Your task to perform on an android device: Open location settings Image 0: 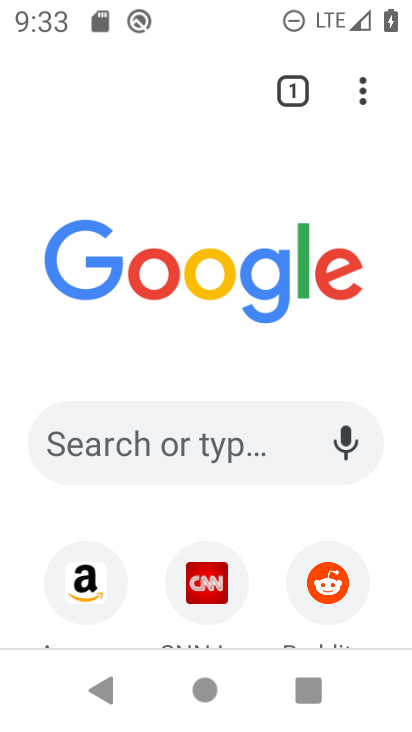
Step 0: press home button
Your task to perform on an android device: Open location settings Image 1: 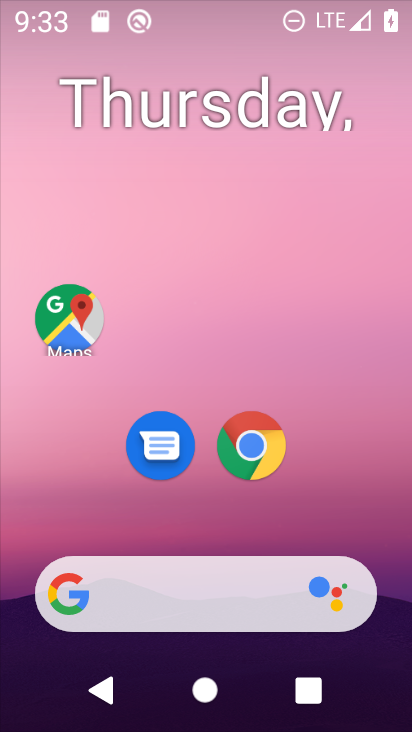
Step 1: drag from (389, 620) to (338, 19)
Your task to perform on an android device: Open location settings Image 2: 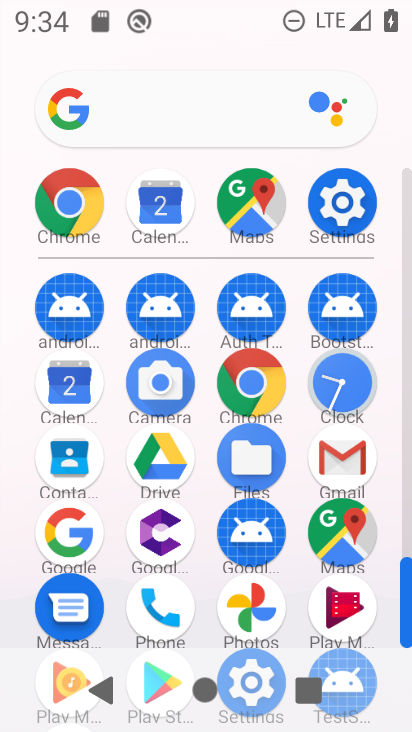
Step 2: click (332, 196)
Your task to perform on an android device: Open location settings Image 3: 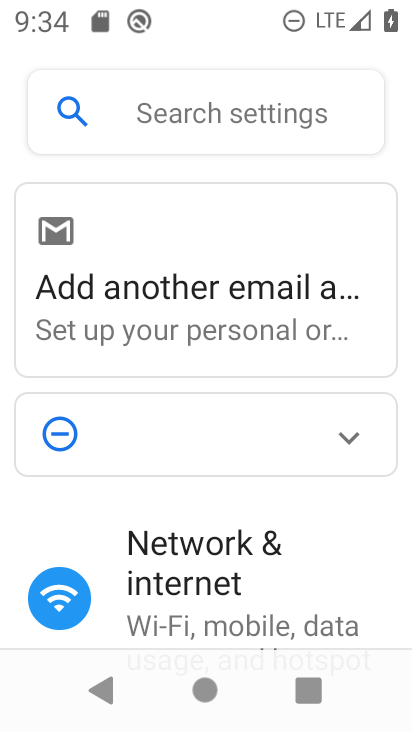
Step 3: drag from (259, 628) to (217, 46)
Your task to perform on an android device: Open location settings Image 4: 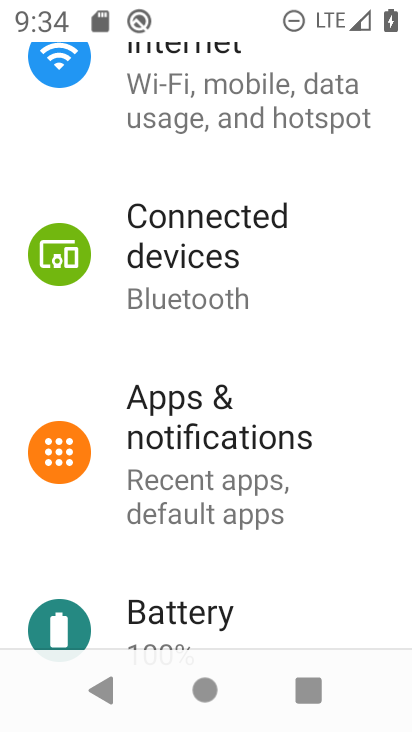
Step 4: drag from (140, 582) to (121, 40)
Your task to perform on an android device: Open location settings Image 5: 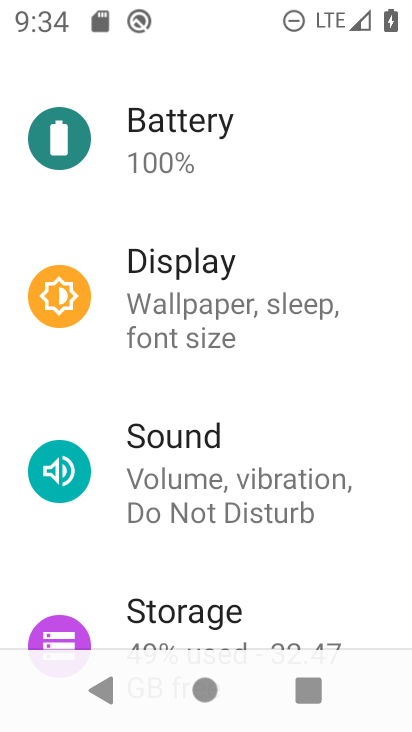
Step 5: drag from (216, 540) to (206, 31)
Your task to perform on an android device: Open location settings Image 6: 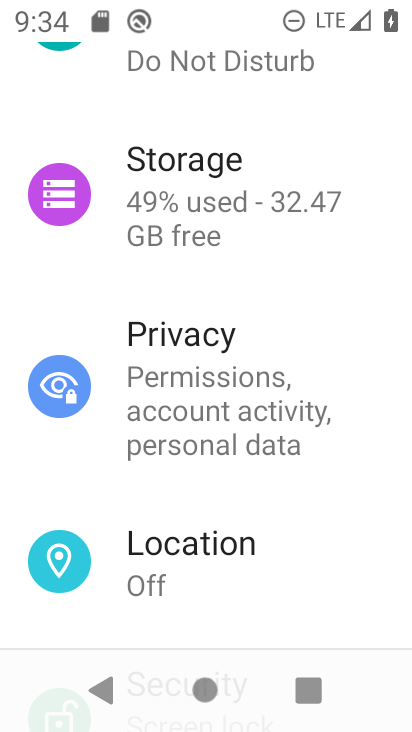
Step 6: click (181, 532)
Your task to perform on an android device: Open location settings Image 7: 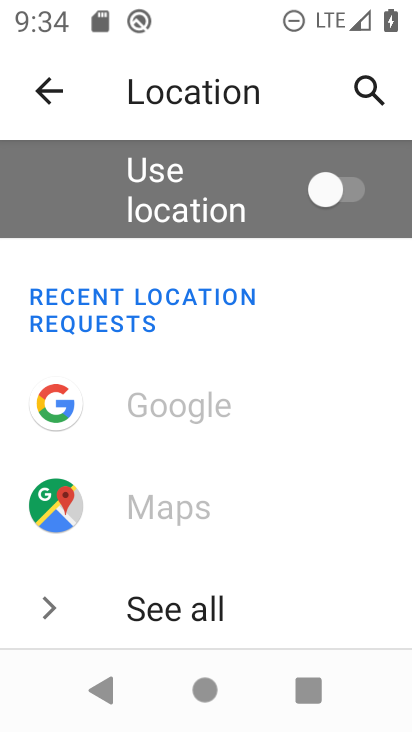
Step 7: task complete